Your task to perform on an android device: Open ESPN.com Image 0: 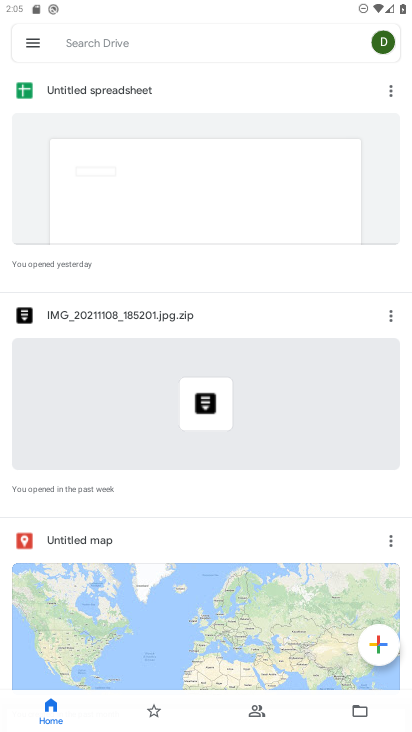
Step 0: press home button
Your task to perform on an android device: Open ESPN.com Image 1: 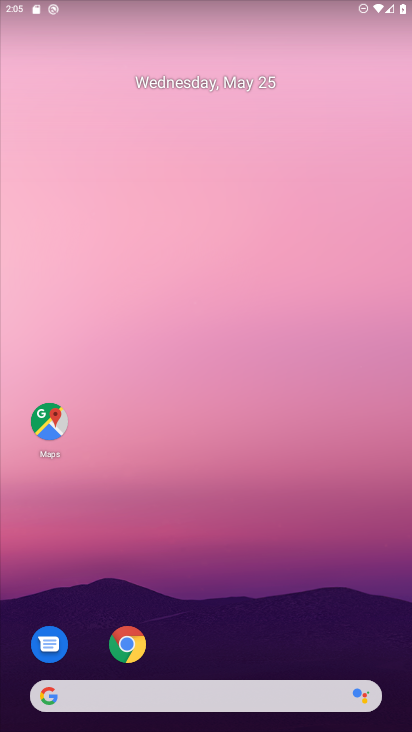
Step 1: click (138, 653)
Your task to perform on an android device: Open ESPN.com Image 2: 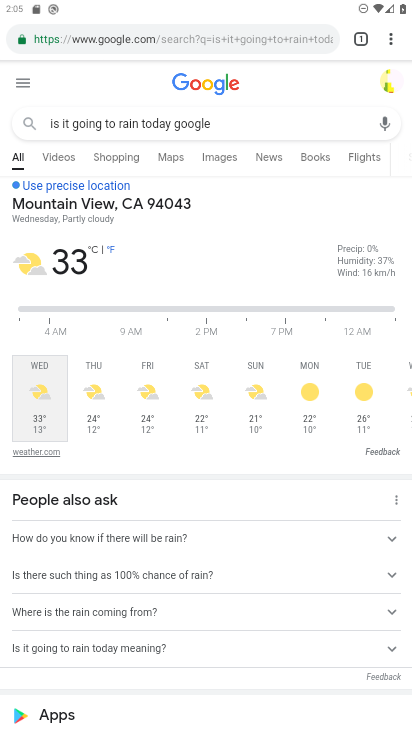
Step 2: click (244, 51)
Your task to perform on an android device: Open ESPN.com Image 3: 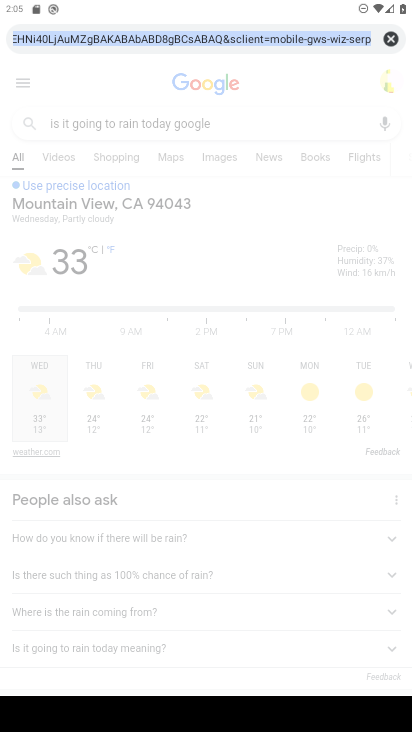
Step 3: type "espn.com"
Your task to perform on an android device: Open ESPN.com Image 4: 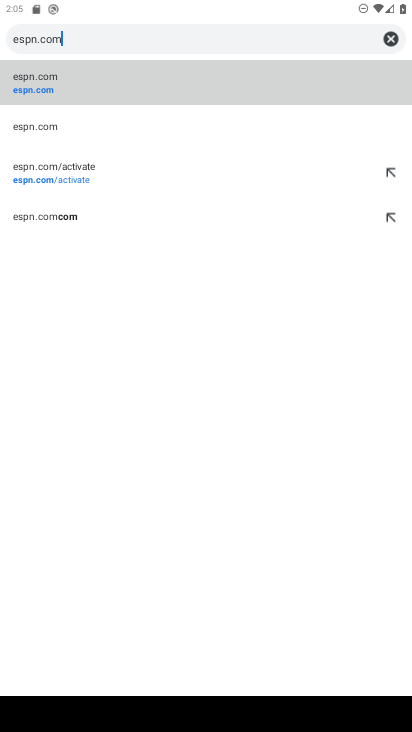
Step 4: click (46, 91)
Your task to perform on an android device: Open ESPN.com Image 5: 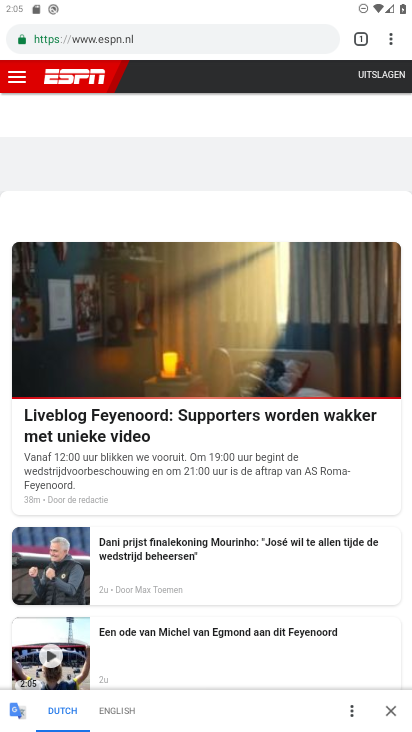
Step 5: task complete